Your task to perform on an android device: Go to network settings Image 0: 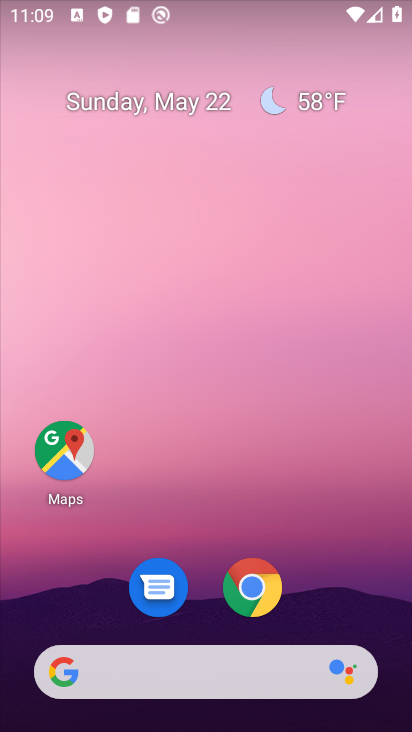
Step 0: drag from (262, 490) to (241, 0)
Your task to perform on an android device: Go to network settings Image 1: 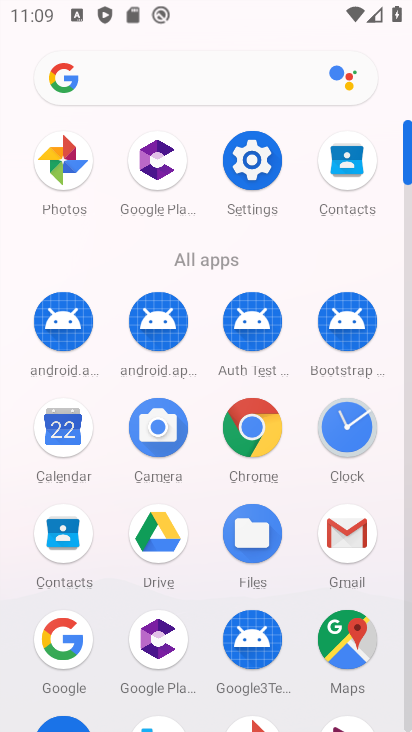
Step 1: click (240, 156)
Your task to perform on an android device: Go to network settings Image 2: 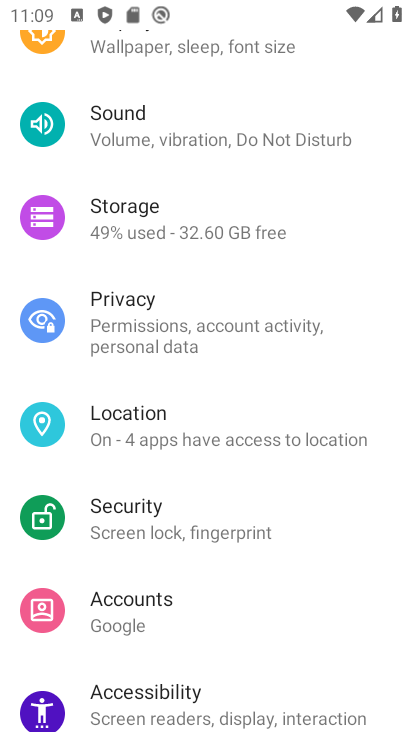
Step 2: drag from (233, 228) to (261, 674)
Your task to perform on an android device: Go to network settings Image 3: 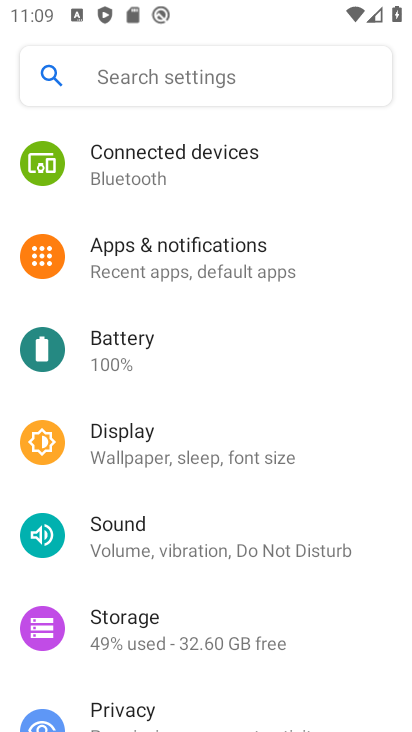
Step 3: drag from (267, 326) to (265, 636)
Your task to perform on an android device: Go to network settings Image 4: 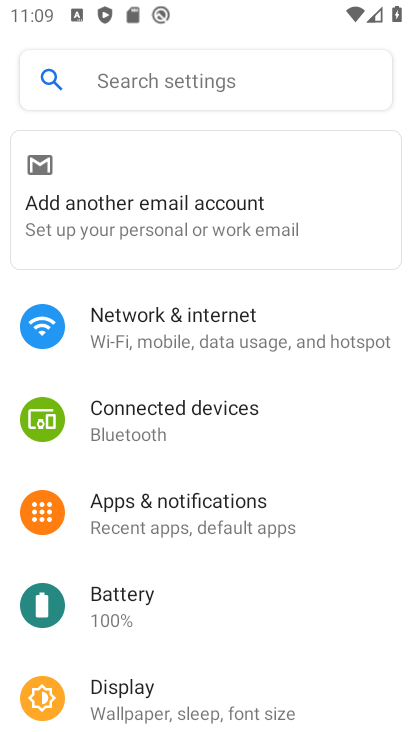
Step 4: click (230, 337)
Your task to perform on an android device: Go to network settings Image 5: 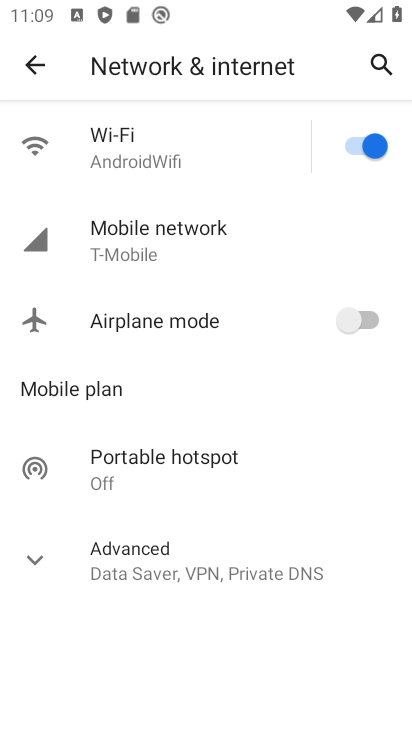
Step 5: task complete